Your task to perform on an android device: Go to CNN.com Image 0: 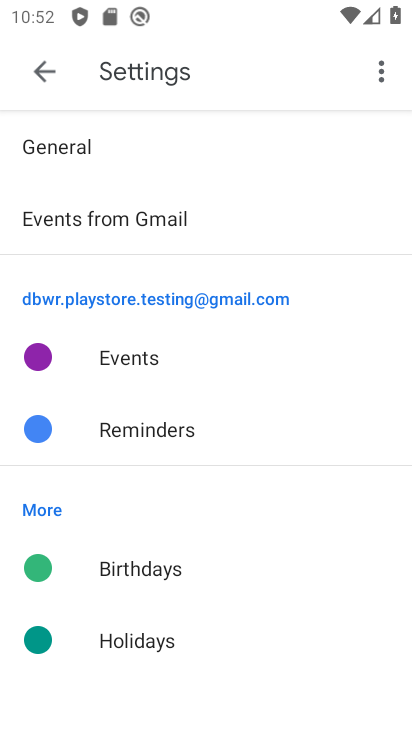
Step 0: press home button
Your task to perform on an android device: Go to CNN.com Image 1: 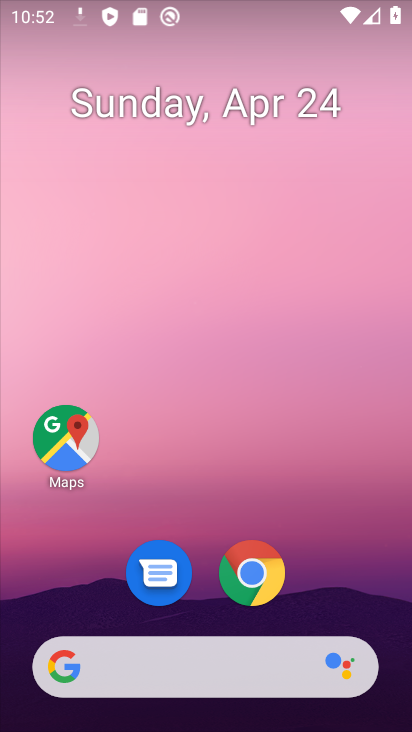
Step 1: click (249, 580)
Your task to perform on an android device: Go to CNN.com Image 2: 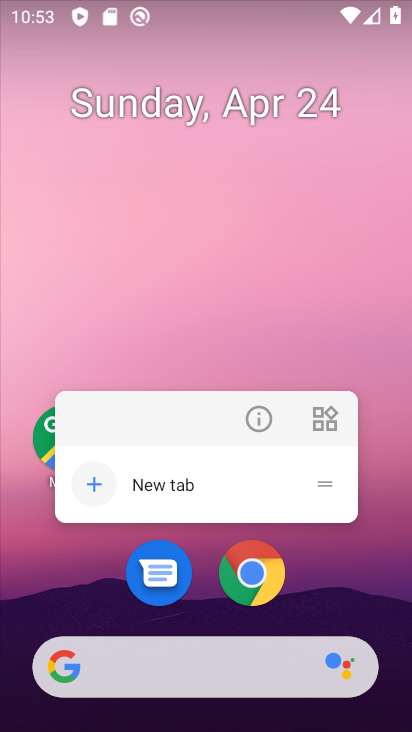
Step 2: click (261, 577)
Your task to perform on an android device: Go to CNN.com Image 3: 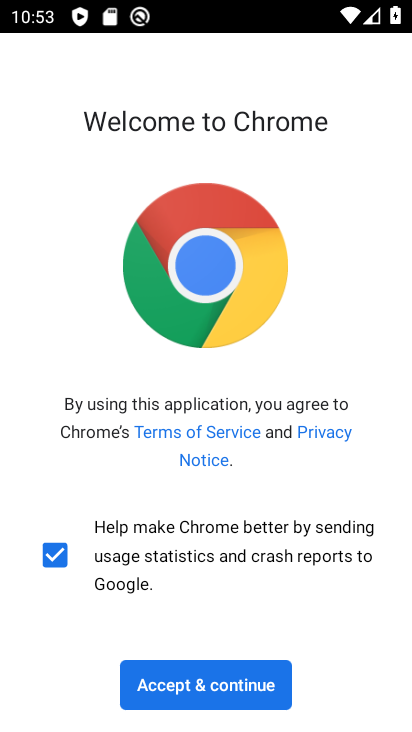
Step 3: click (212, 687)
Your task to perform on an android device: Go to CNN.com Image 4: 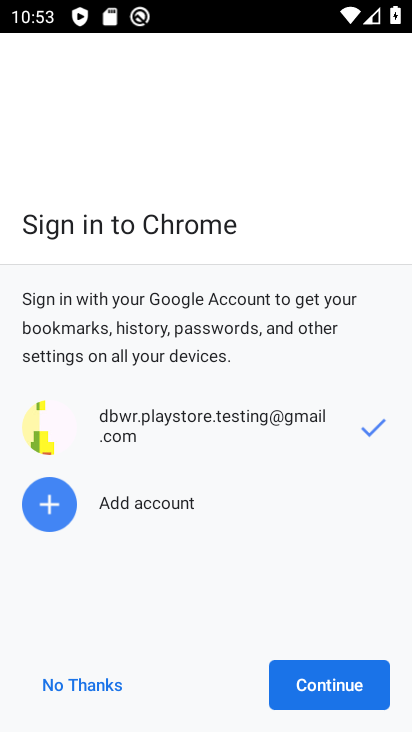
Step 4: click (307, 684)
Your task to perform on an android device: Go to CNN.com Image 5: 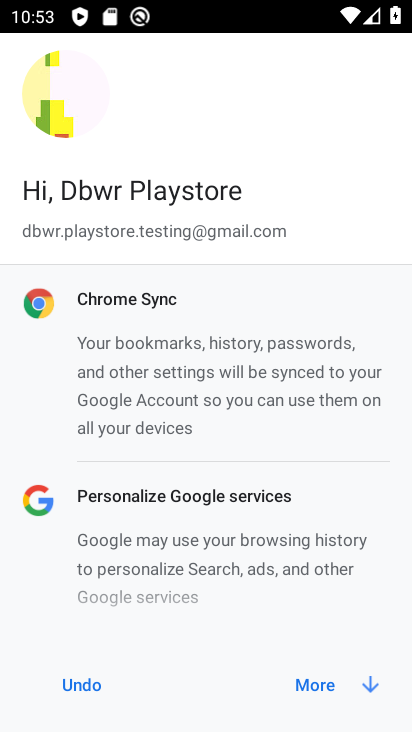
Step 5: click (307, 684)
Your task to perform on an android device: Go to CNN.com Image 6: 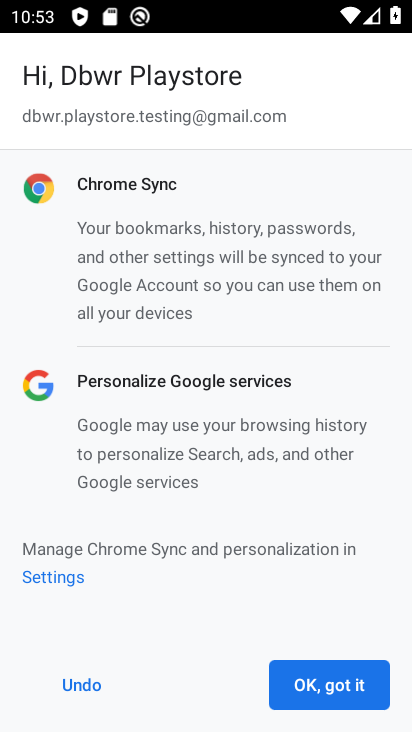
Step 6: click (307, 684)
Your task to perform on an android device: Go to CNN.com Image 7: 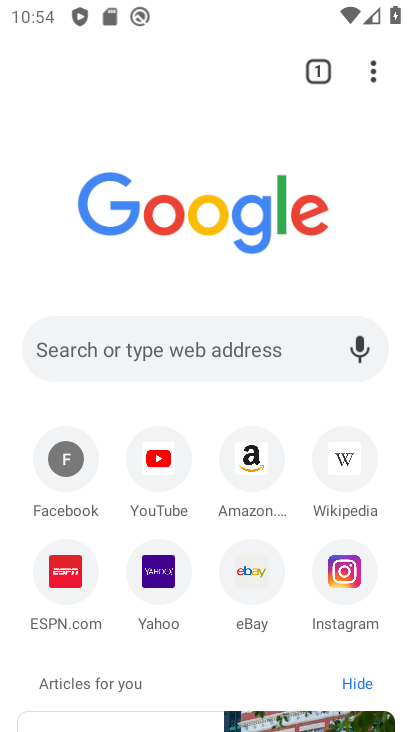
Step 7: click (213, 357)
Your task to perform on an android device: Go to CNN.com Image 8: 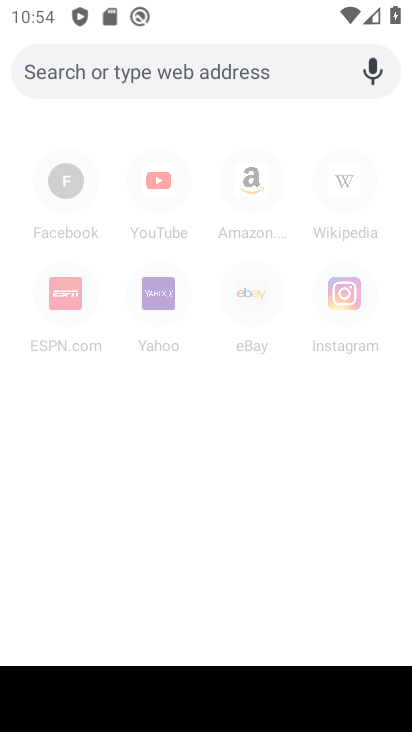
Step 8: type "CNN.com"
Your task to perform on an android device: Go to CNN.com Image 9: 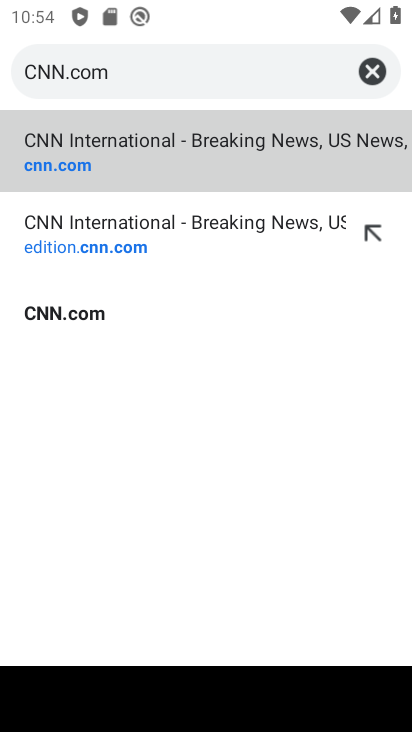
Step 9: click (72, 141)
Your task to perform on an android device: Go to CNN.com Image 10: 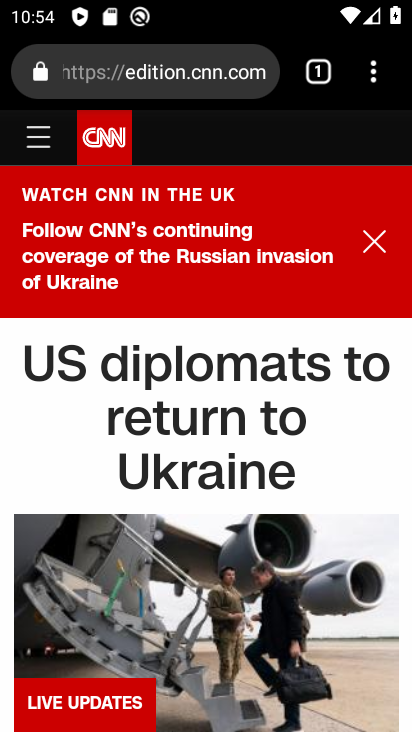
Step 10: task complete